Your task to perform on an android device: toggle data saver in the chrome app Image 0: 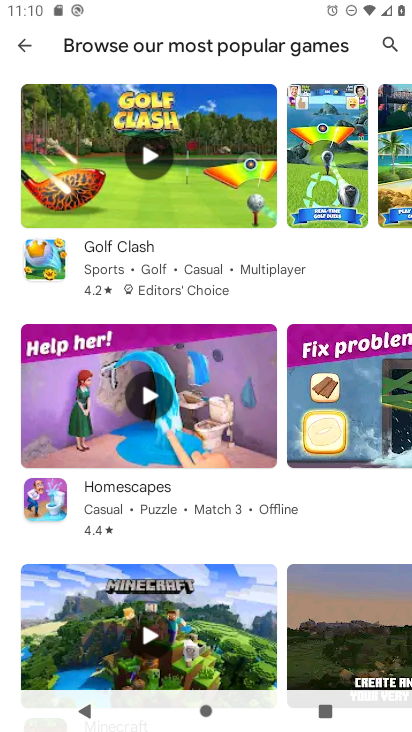
Step 0: press home button
Your task to perform on an android device: toggle data saver in the chrome app Image 1: 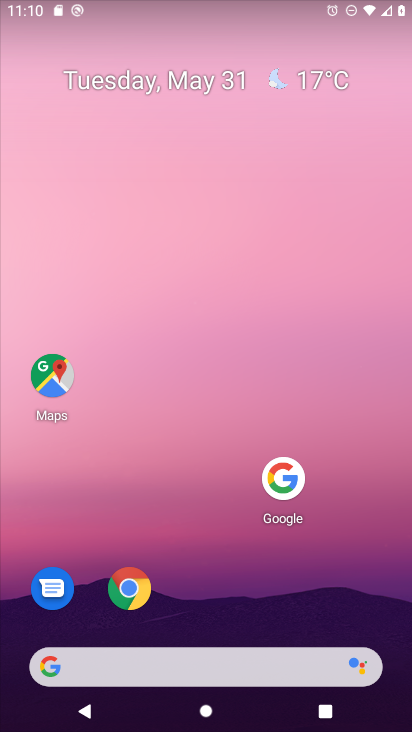
Step 1: click (120, 577)
Your task to perform on an android device: toggle data saver in the chrome app Image 2: 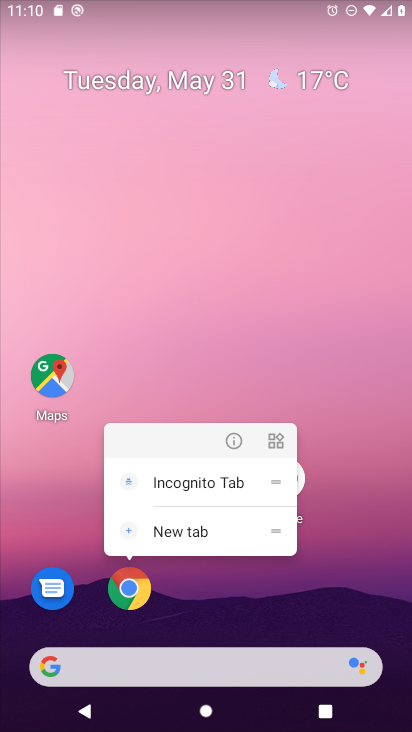
Step 2: click (128, 593)
Your task to perform on an android device: toggle data saver in the chrome app Image 3: 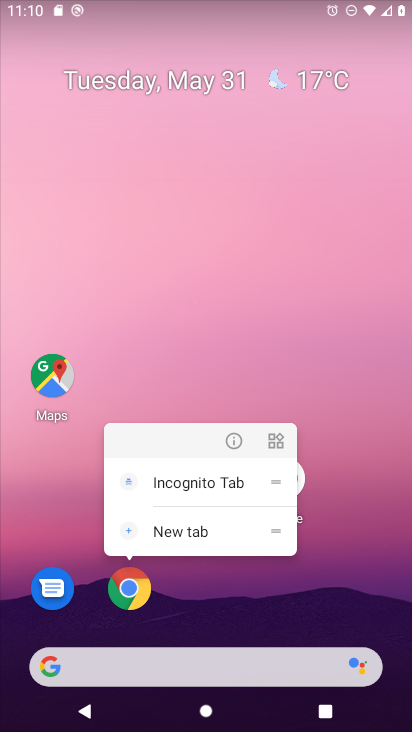
Step 3: click (128, 593)
Your task to perform on an android device: toggle data saver in the chrome app Image 4: 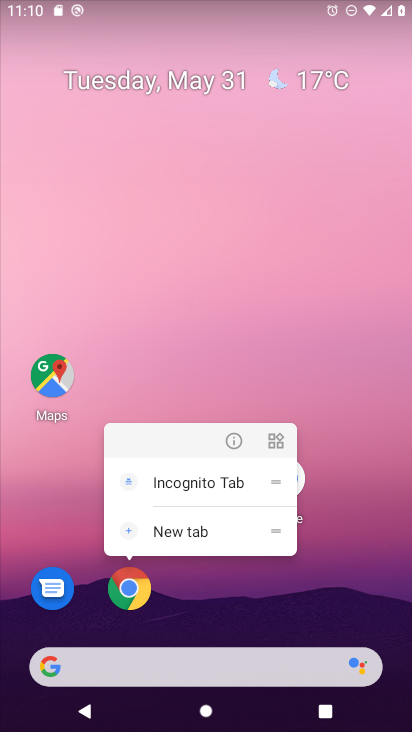
Step 4: click (128, 600)
Your task to perform on an android device: toggle data saver in the chrome app Image 5: 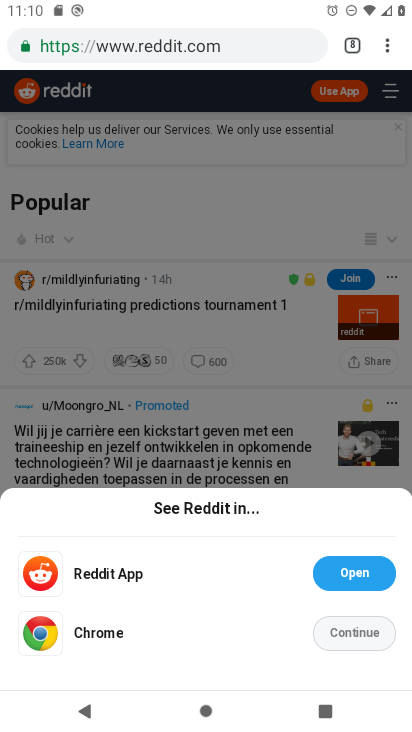
Step 5: drag from (382, 54) to (255, 546)
Your task to perform on an android device: toggle data saver in the chrome app Image 6: 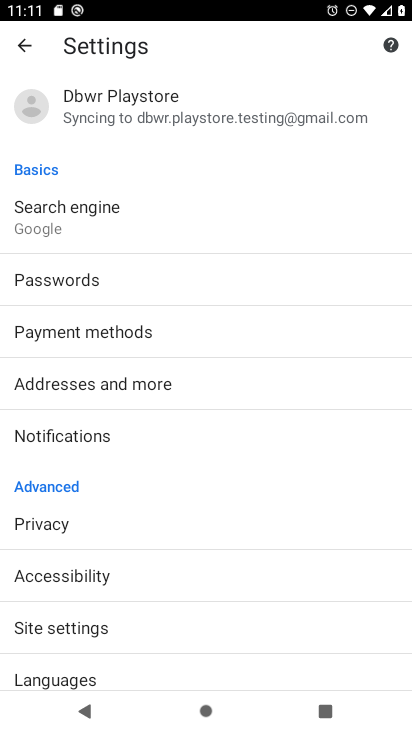
Step 6: drag from (188, 612) to (277, 340)
Your task to perform on an android device: toggle data saver in the chrome app Image 7: 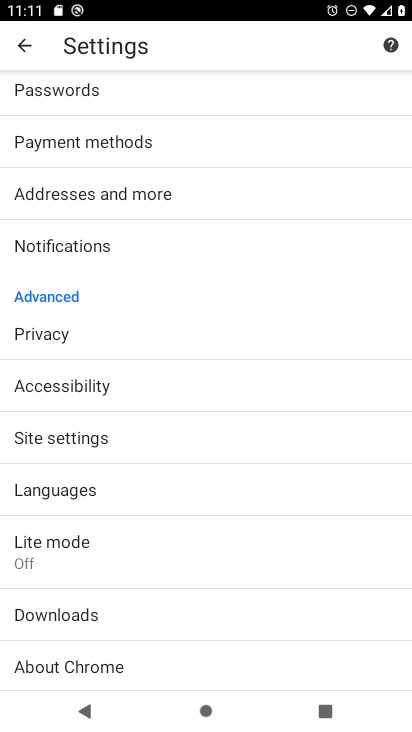
Step 7: click (73, 550)
Your task to perform on an android device: toggle data saver in the chrome app Image 8: 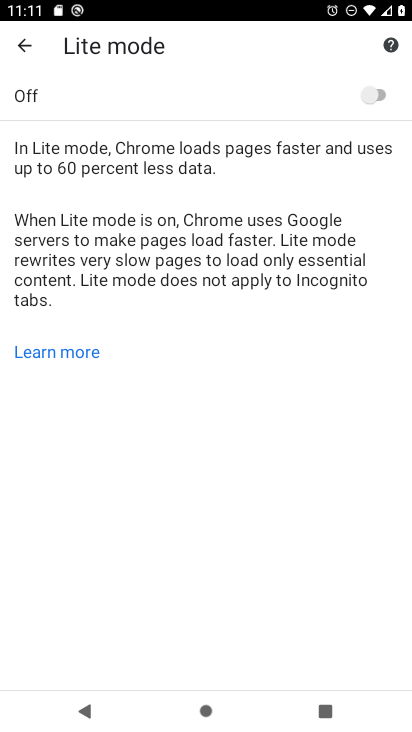
Step 8: click (381, 95)
Your task to perform on an android device: toggle data saver in the chrome app Image 9: 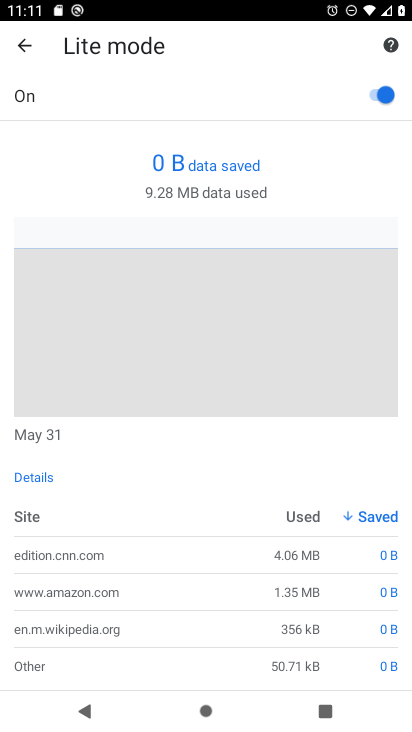
Step 9: task complete